Your task to perform on an android device: change the clock style Image 0: 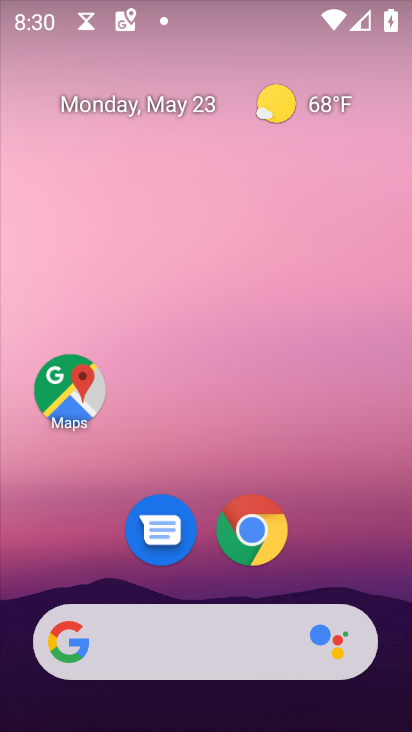
Step 0: drag from (101, 585) to (182, 51)
Your task to perform on an android device: change the clock style Image 1: 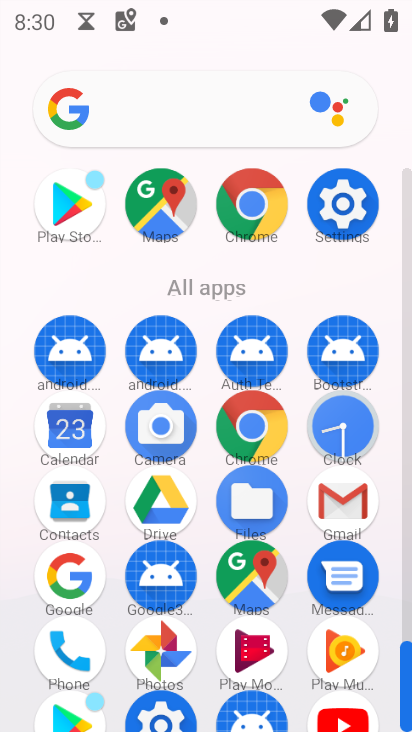
Step 1: click (358, 434)
Your task to perform on an android device: change the clock style Image 2: 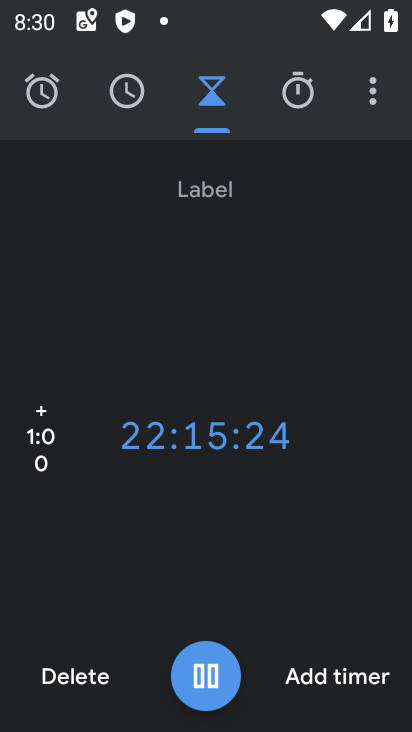
Step 2: click (383, 108)
Your task to perform on an android device: change the clock style Image 3: 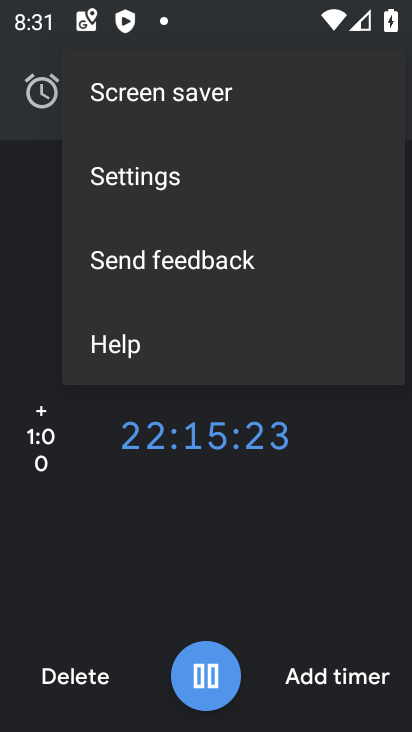
Step 3: click (284, 182)
Your task to perform on an android device: change the clock style Image 4: 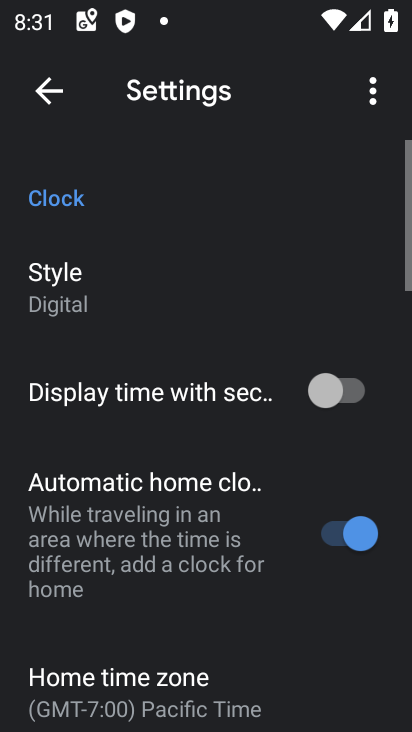
Step 4: click (203, 292)
Your task to perform on an android device: change the clock style Image 5: 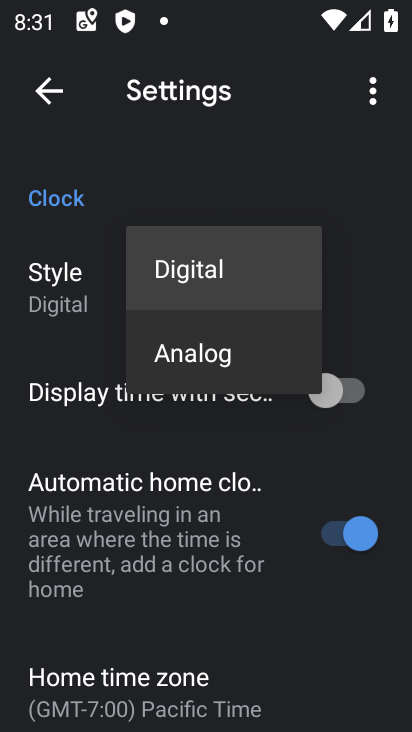
Step 5: click (245, 358)
Your task to perform on an android device: change the clock style Image 6: 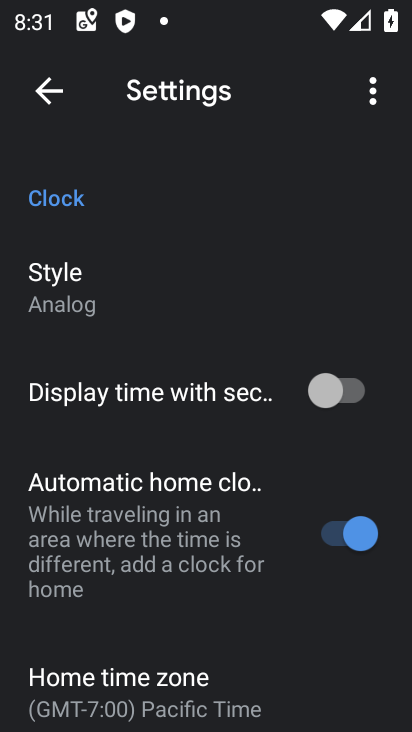
Step 6: task complete